Your task to perform on an android device: set an alarm Image 0: 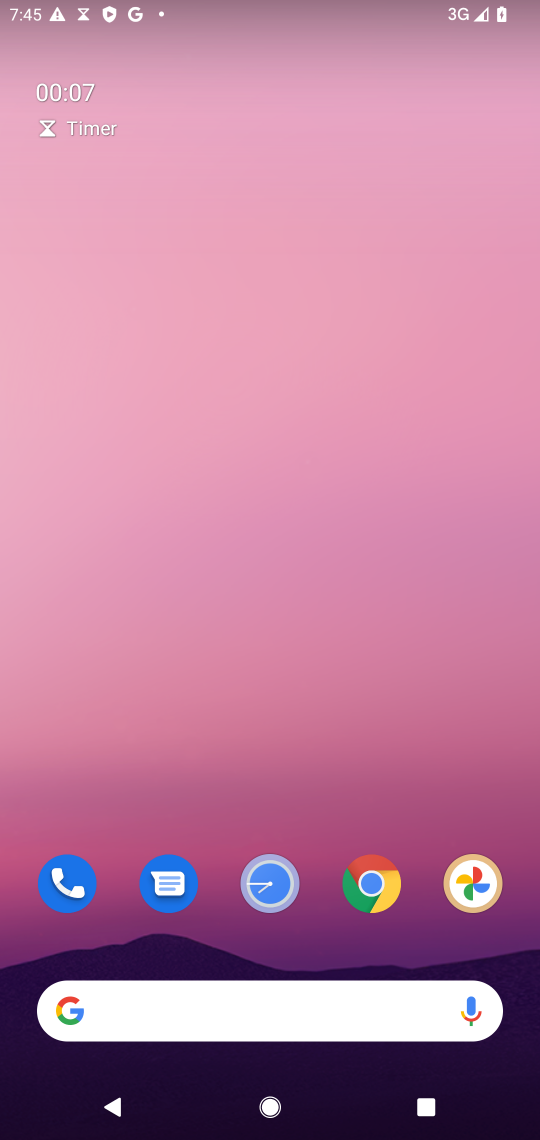
Step 0: drag from (268, 1002) to (315, 389)
Your task to perform on an android device: set an alarm Image 1: 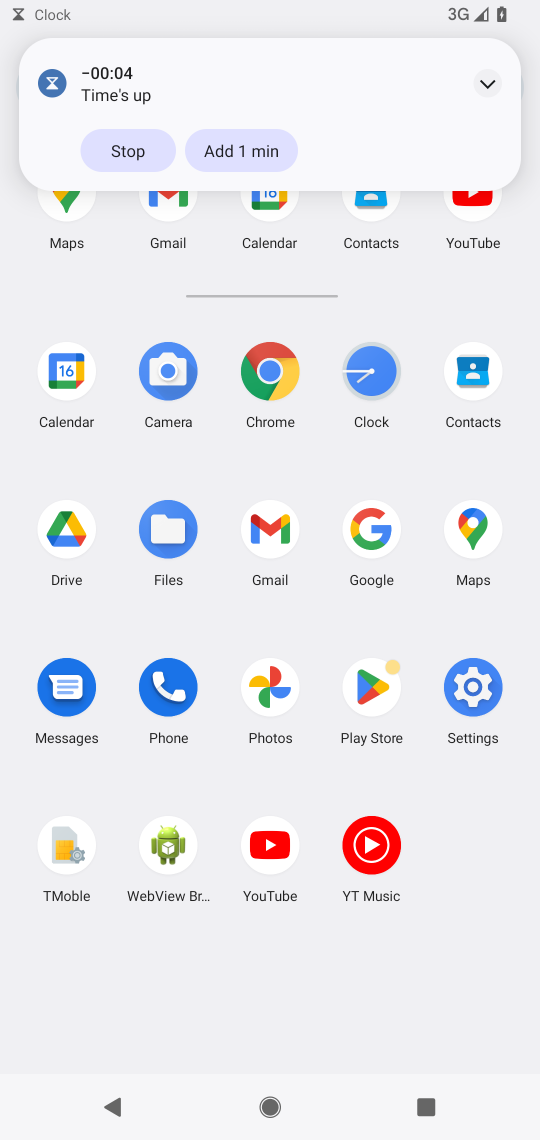
Step 1: click (143, 167)
Your task to perform on an android device: set an alarm Image 2: 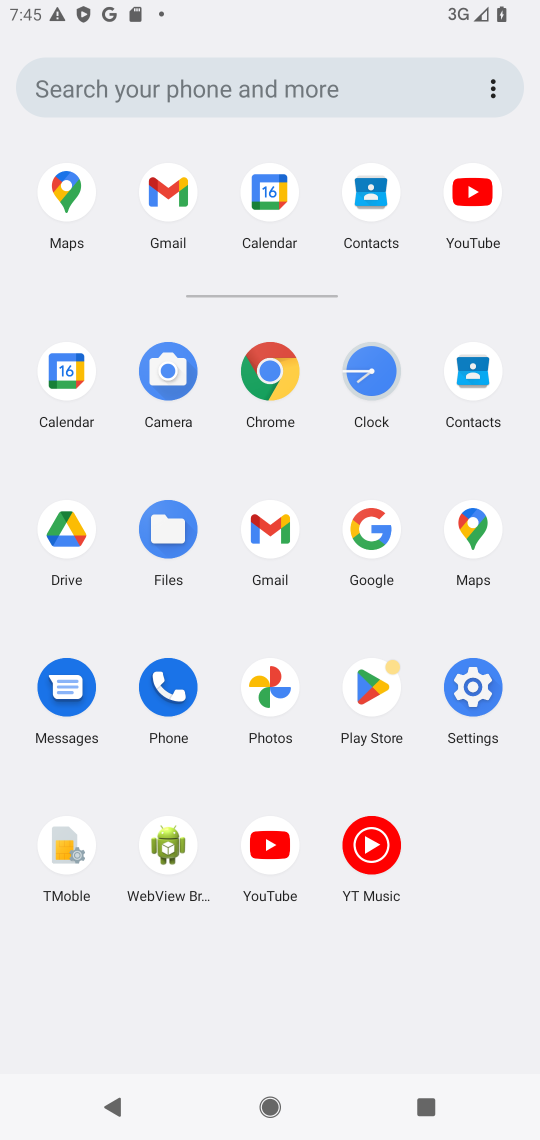
Step 2: click (375, 373)
Your task to perform on an android device: set an alarm Image 3: 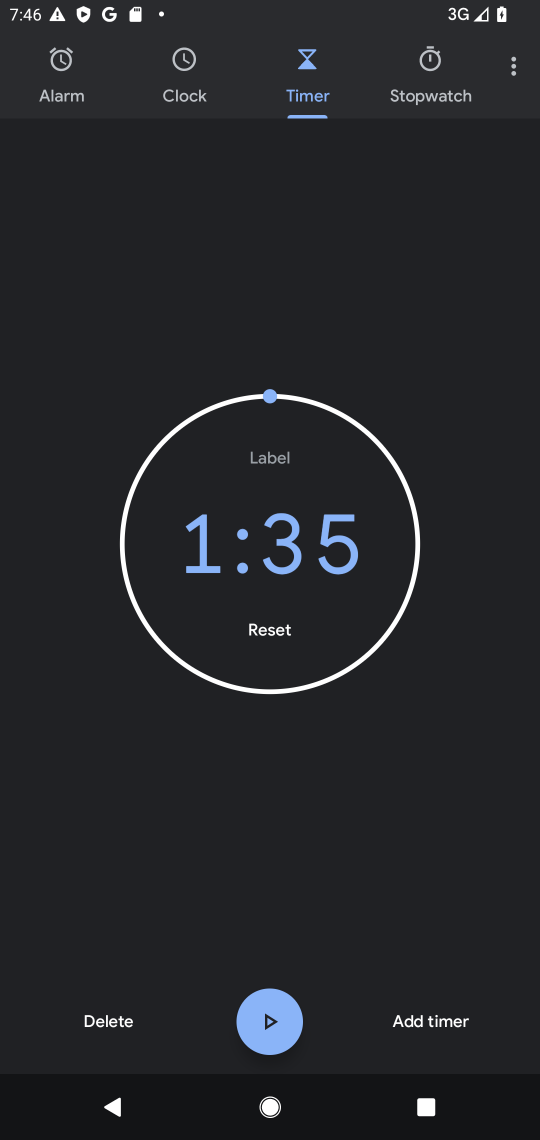
Step 3: click (59, 73)
Your task to perform on an android device: set an alarm Image 4: 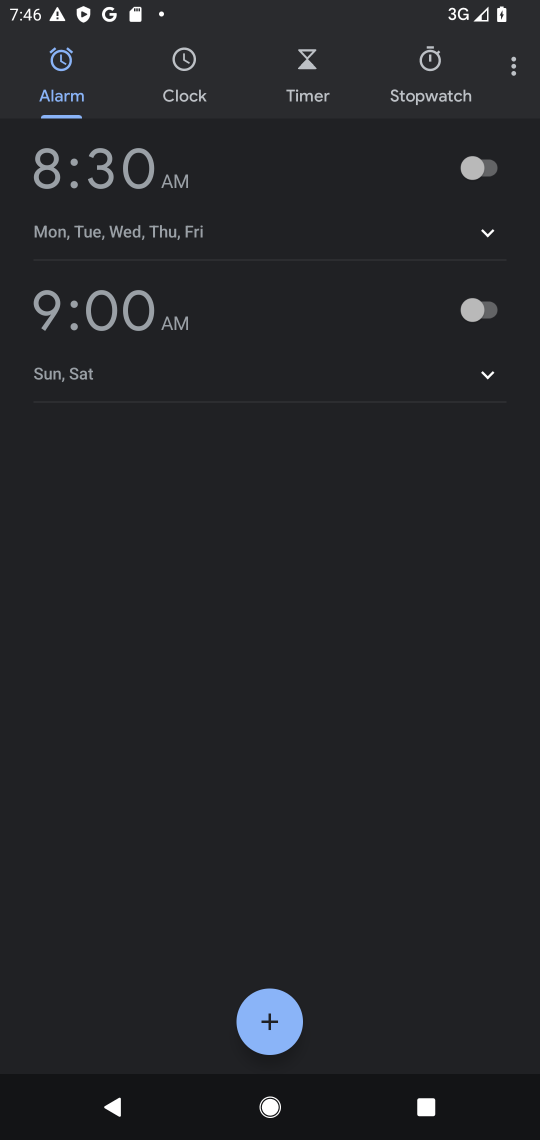
Step 4: click (151, 162)
Your task to perform on an android device: set an alarm Image 5: 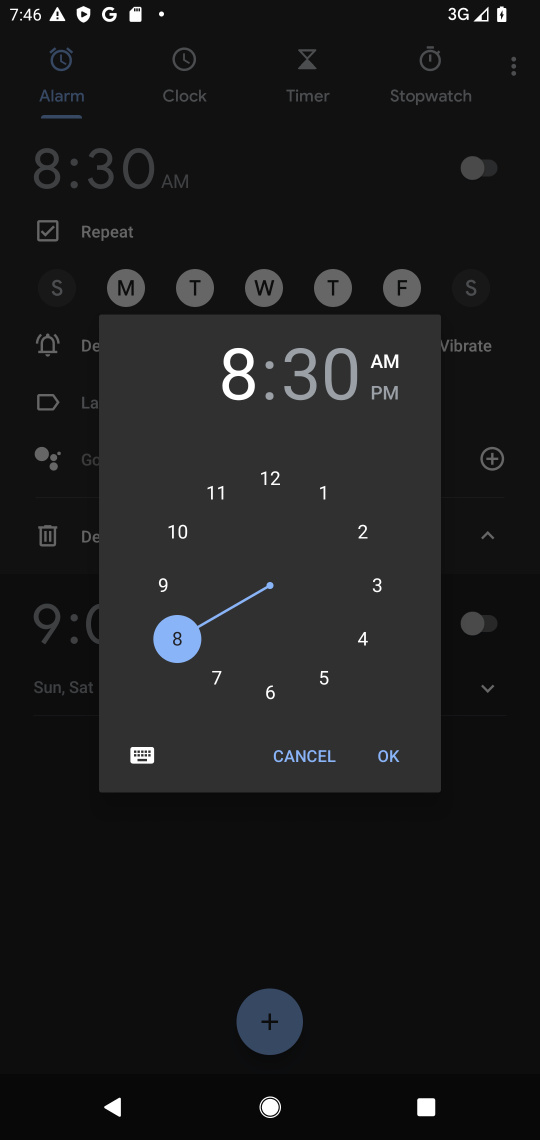
Step 5: click (272, 489)
Your task to perform on an android device: set an alarm Image 6: 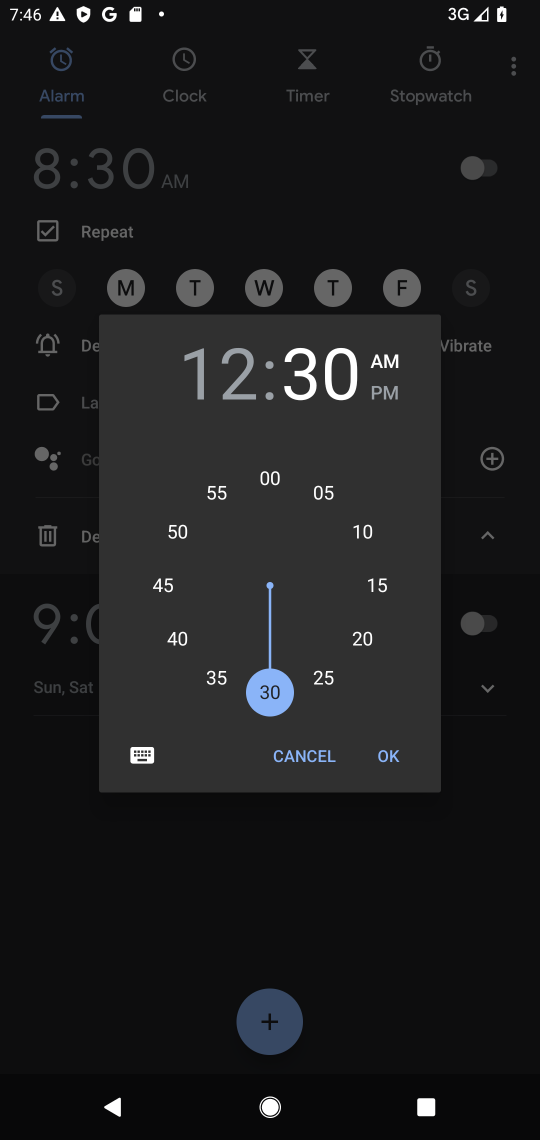
Step 6: click (220, 511)
Your task to perform on an android device: set an alarm Image 7: 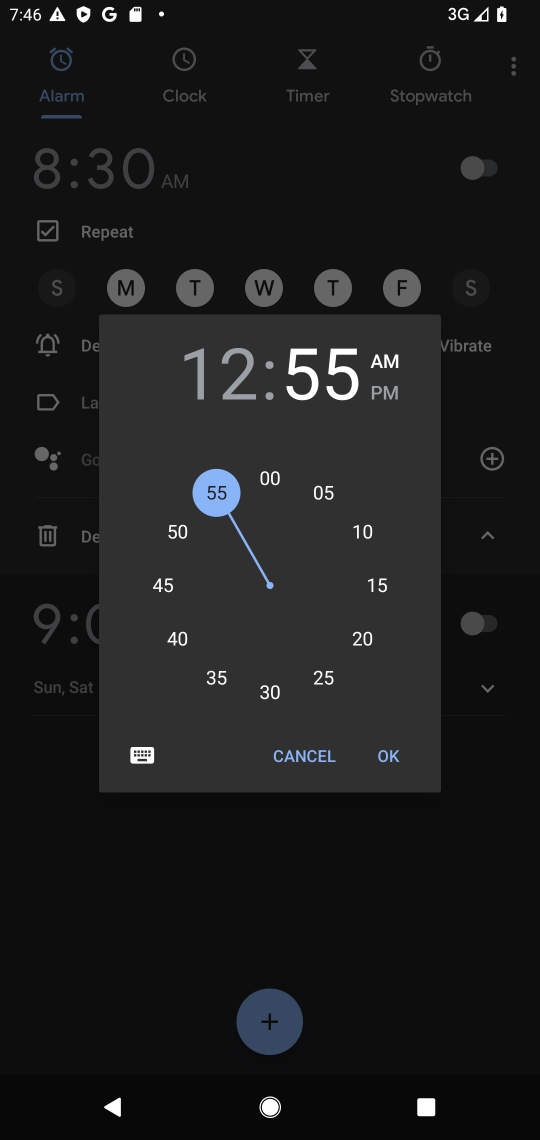
Step 7: click (193, 516)
Your task to perform on an android device: set an alarm Image 8: 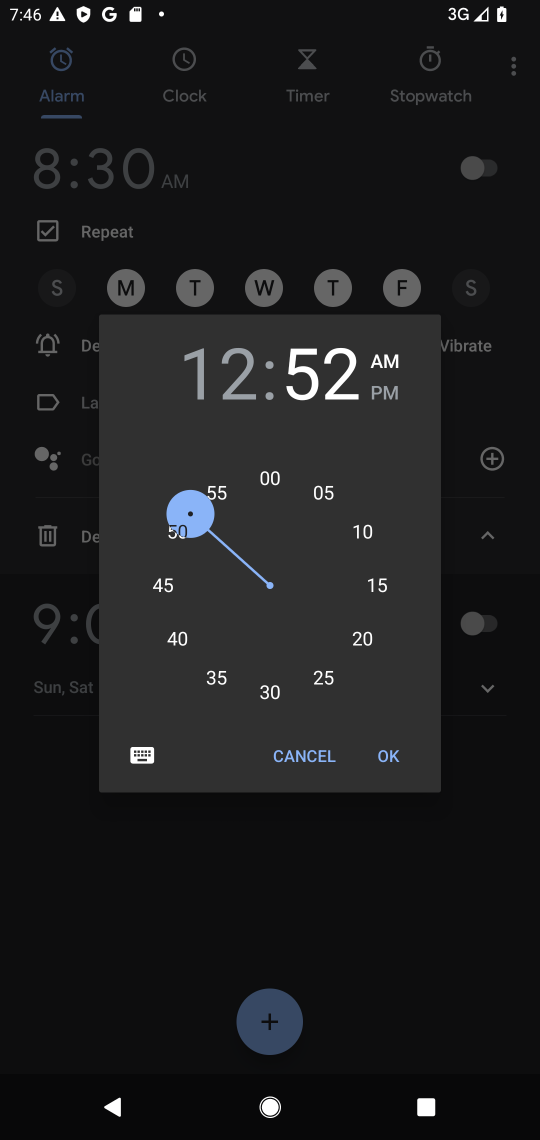
Step 8: click (396, 396)
Your task to perform on an android device: set an alarm Image 9: 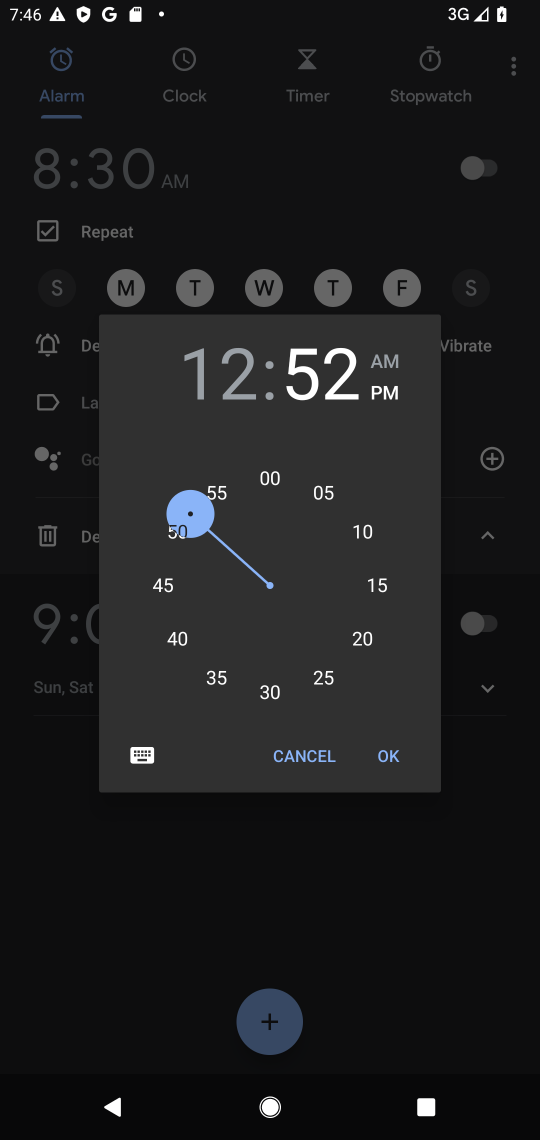
Step 9: drag from (358, 732) to (533, 843)
Your task to perform on an android device: set an alarm Image 10: 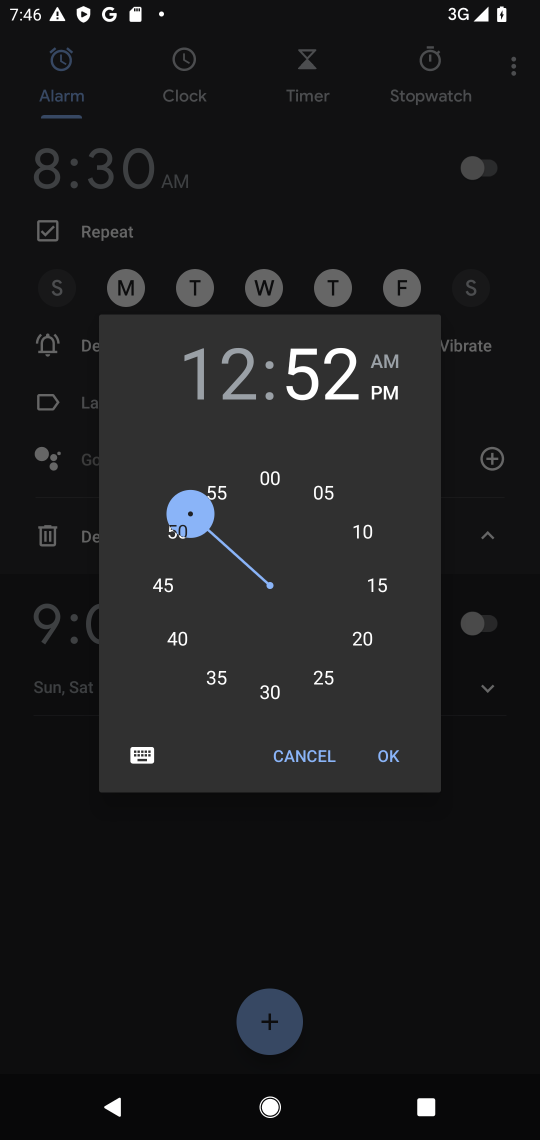
Step 10: click (406, 755)
Your task to perform on an android device: set an alarm Image 11: 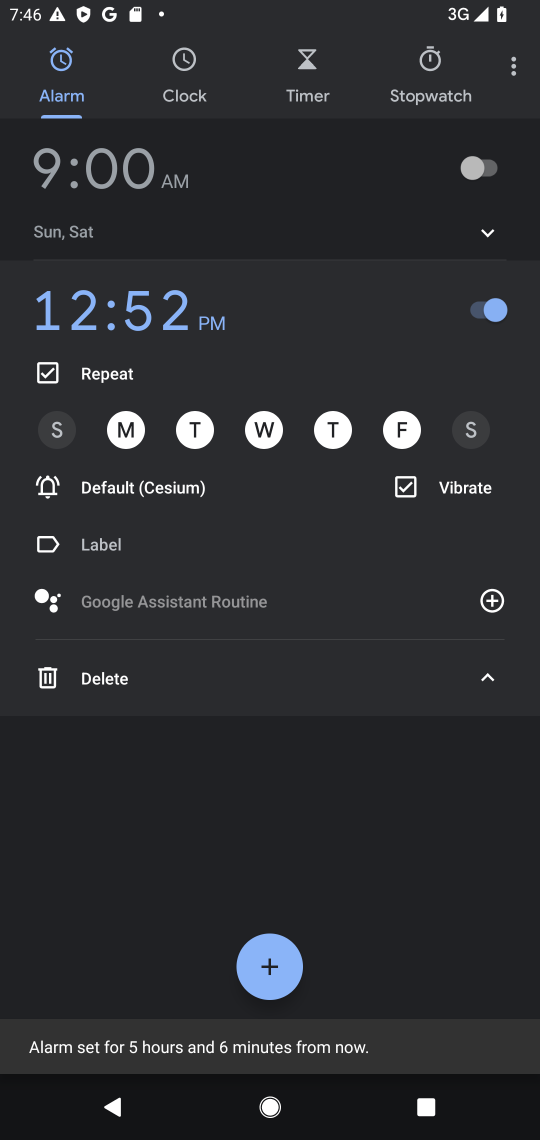
Step 11: click (462, 698)
Your task to perform on an android device: set an alarm Image 12: 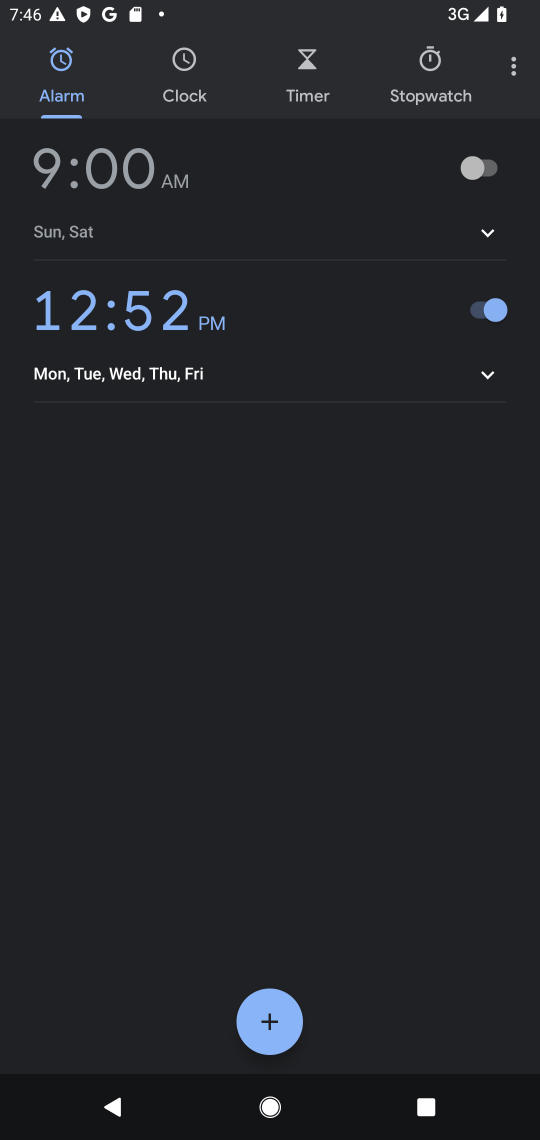
Step 12: task complete